Your task to perform on an android device: check google app version Image 0: 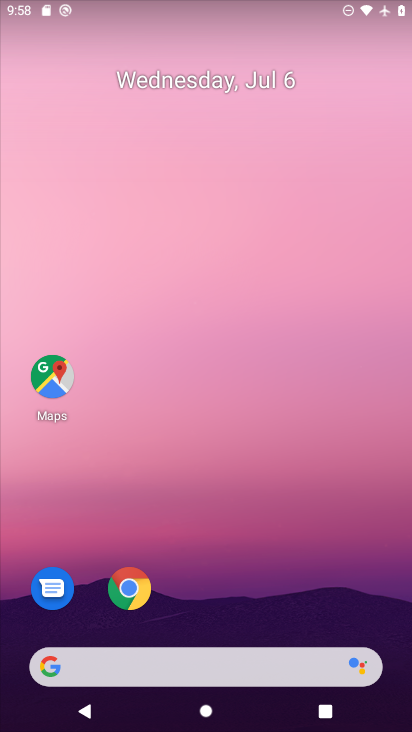
Step 0: drag from (148, 663) to (336, 150)
Your task to perform on an android device: check google app version Image 1: 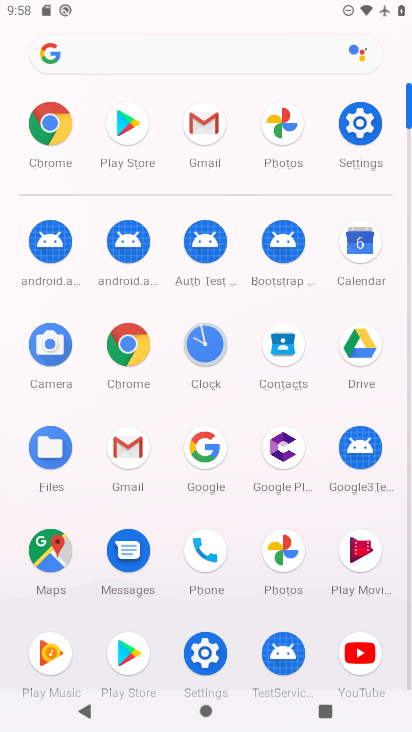
Step 1: click (202, 452)
Your task to perform on an android device: check google app version Image 2: 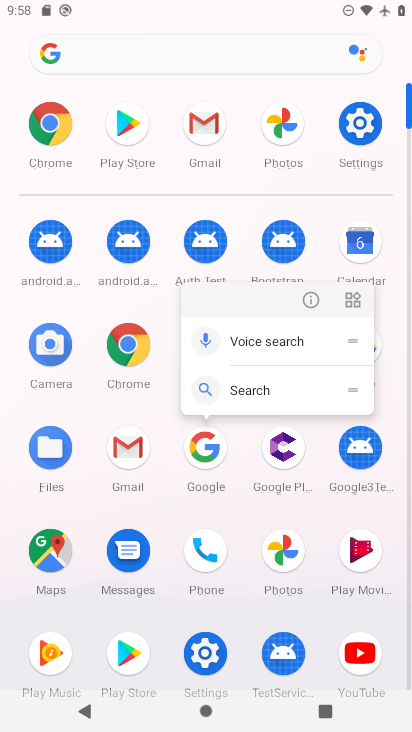
Step 2: click (305, 302)
Your task to perform on an android device: check google app version Image 3: 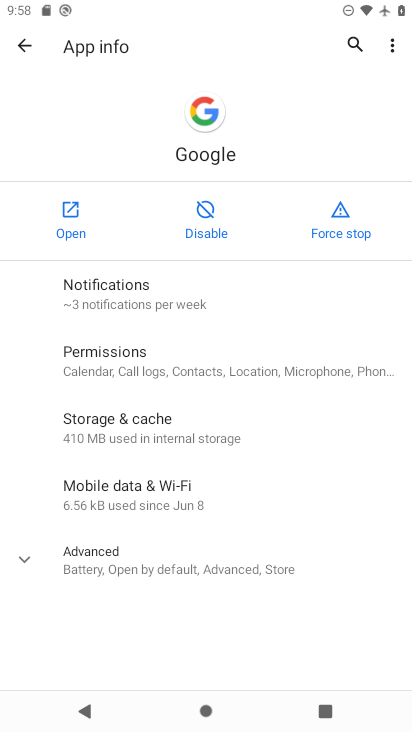
Step 3: click (128, 557)
Your task to perform on an android device: check google app version Image 4: 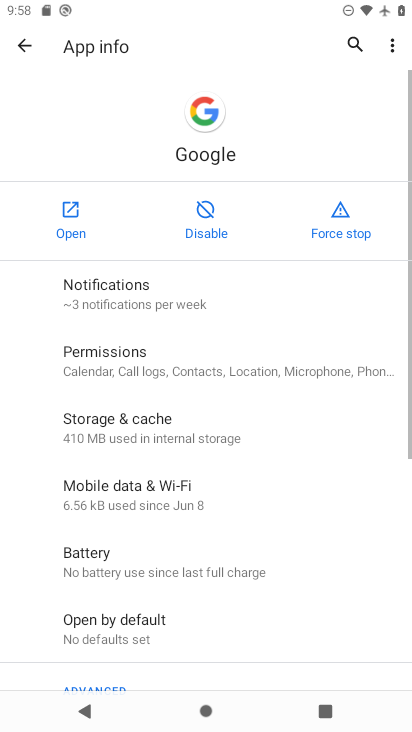
Step 4: task complete